Your task to perform on an android device: empty trash in google photos Image 0: 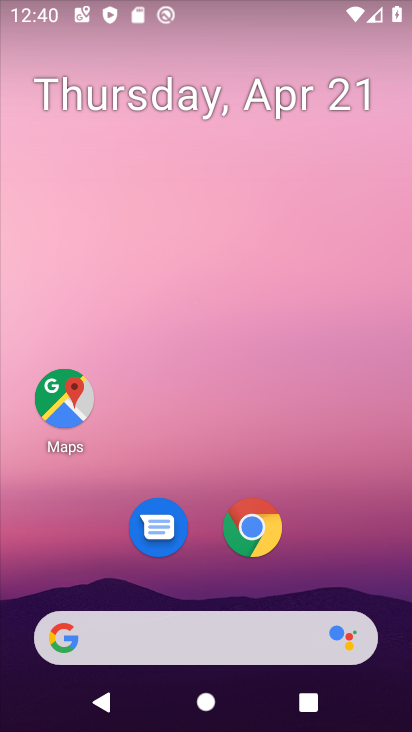
Step 0: drag from (337, 559) to (339, 81)
Your task to perform on an android device: empty trash in google photos Image 1: 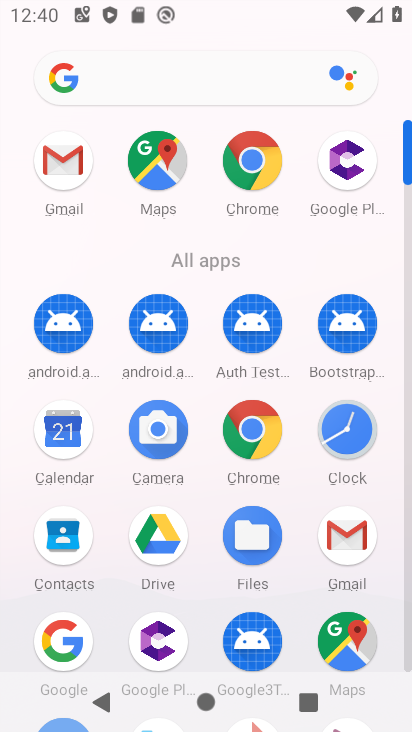
Step 1: drag from (196, 587) to (204, 286)
Your task to perform on an android device: empty trash in google photos Image 2: 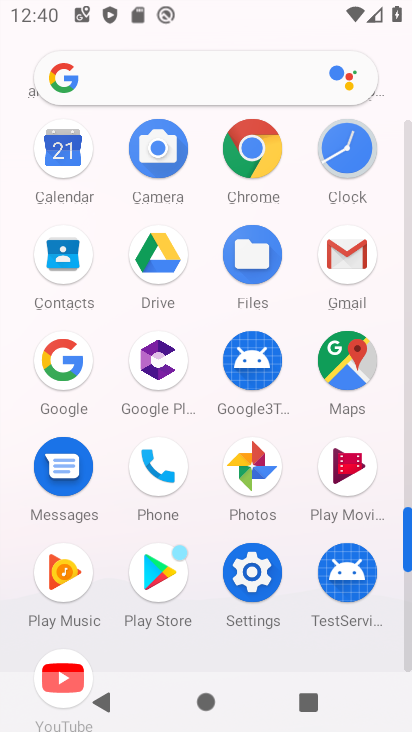
Step 2: click (253, 469)
Your task to perform on an android device: empty trash in google photos Image 3: 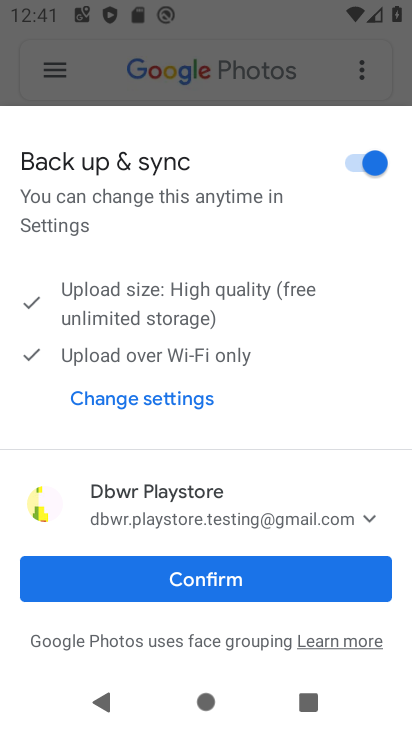
Step 3: click (354, 572)
Your task to perform on an android device: empty trash in google photos Image 4: 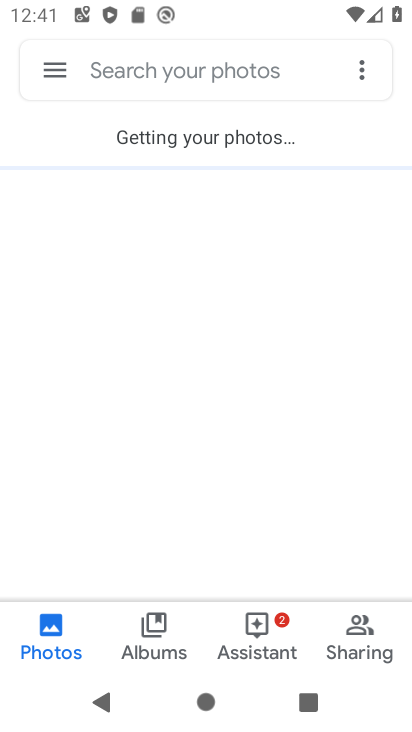
Step 4: click (56, 72)
Your task to perform on an android device: empty trash in google photos Image 5: 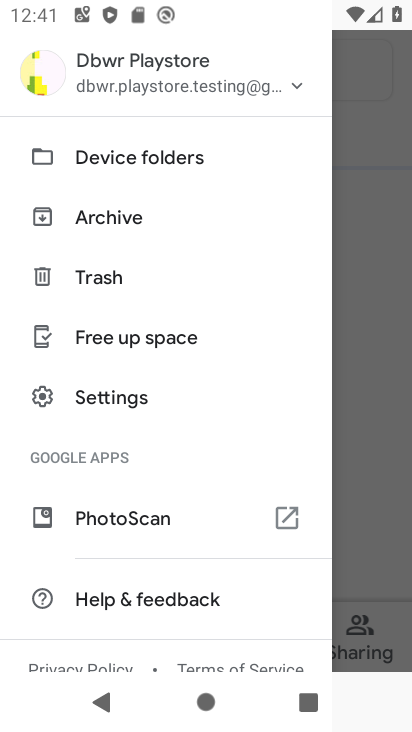
Step 5: drag from (216, 486) to (228, 298)
Your task to perform on an android device: empty trash in google photos Image 6: 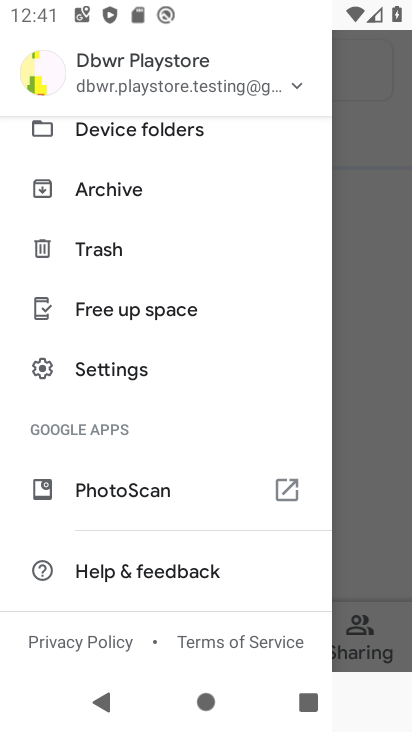
Step 6: click (86, 242)
Your task to perform on an android device: empty trash in google photos Image 7: 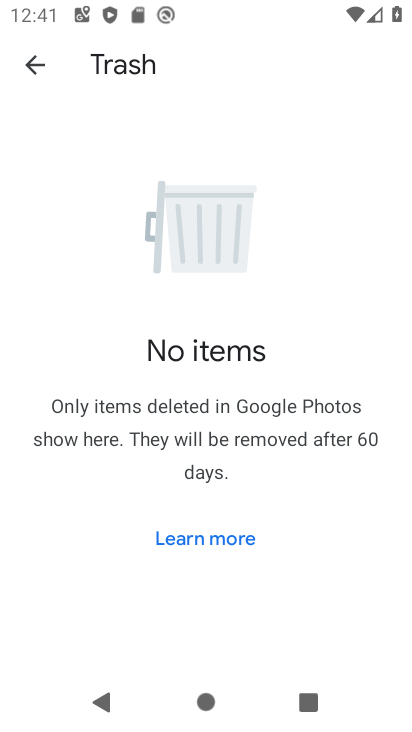
Step 7: task complete